Your task to perform on an android device: Open the phone app and click the voicemail tab. Image 0: 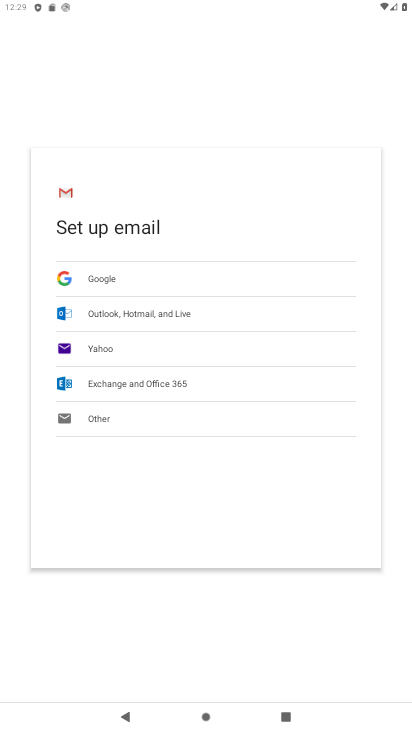
Step 0: press home button
Your task to perform on an android device: Open the phone app and click the voicemail tab. Image 1: 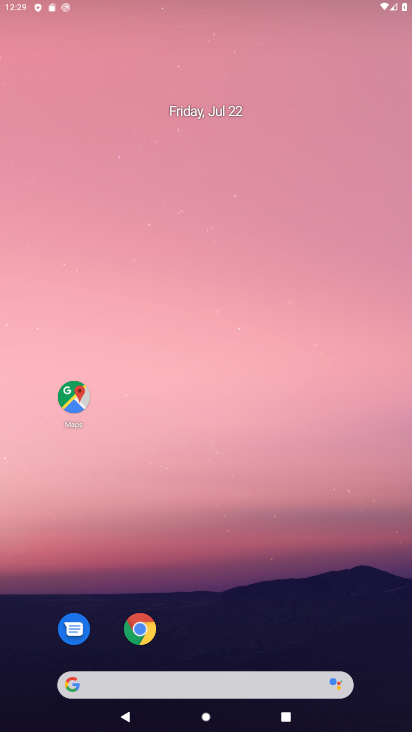
Step 1: drag from (228, 632) to (280, 38)
Your task to perform on an android device: Open the phone app and click the voicemail tab. Image 2: 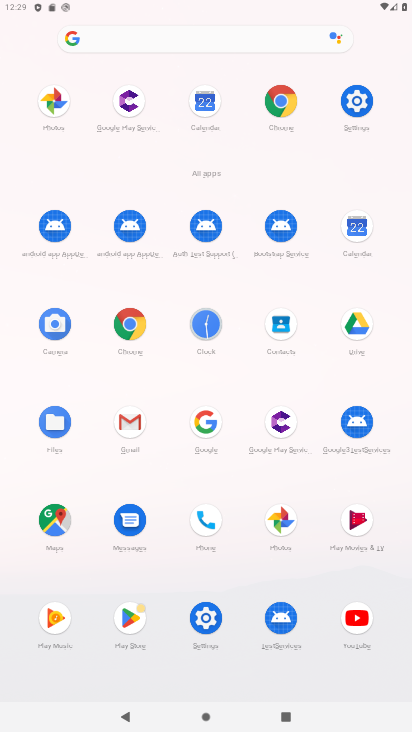
Step 2: click (210, 517)
Your task to perform on an android device: Open the phone app and click the voicemail tab. Image 3: 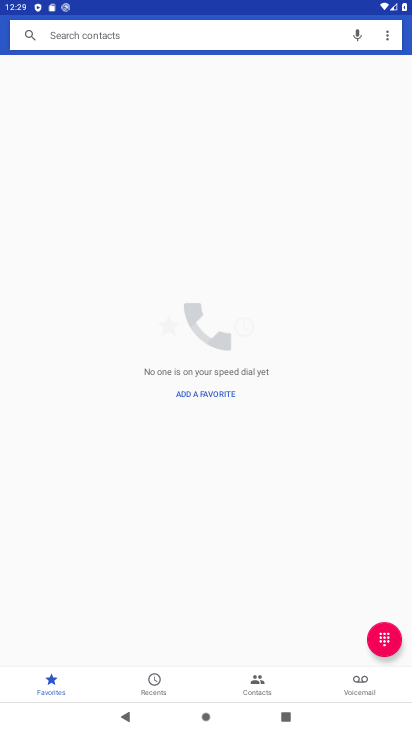
Step 3: click (360, 684)
Your task to perform on an android device: Open the phone app and click the voicemail tab. Image 4: 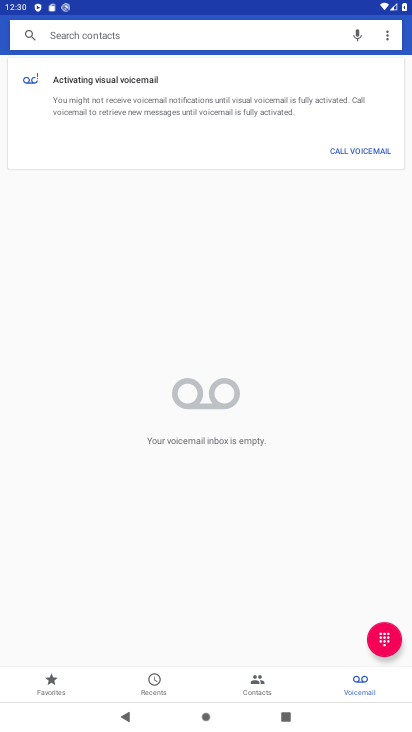
Step 4: task complete